Your task to perform on an android device: toggle priority inbox in the gmail app Image 0: 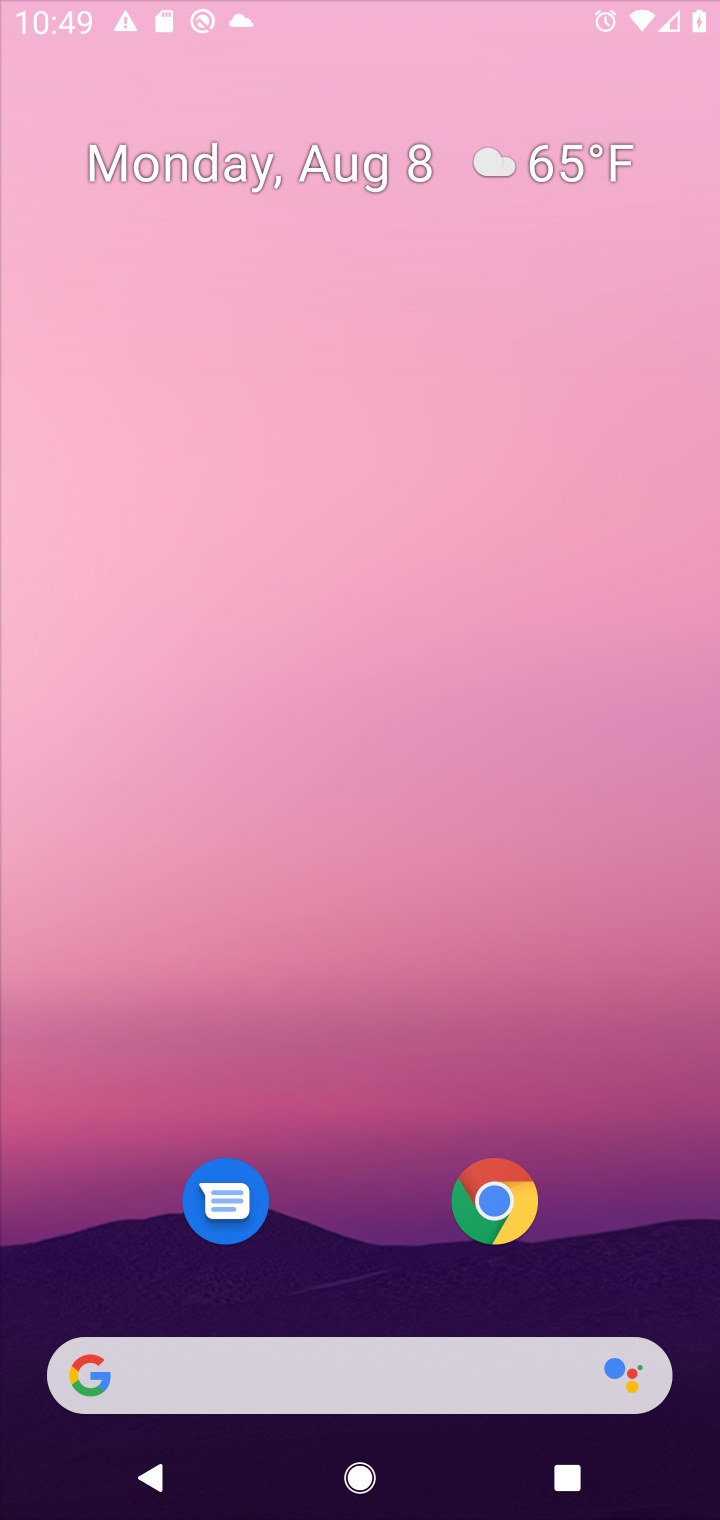
Step 0: press home button
Your task to perform on an android device: toggle priority inbox in the gmail app Image 1: 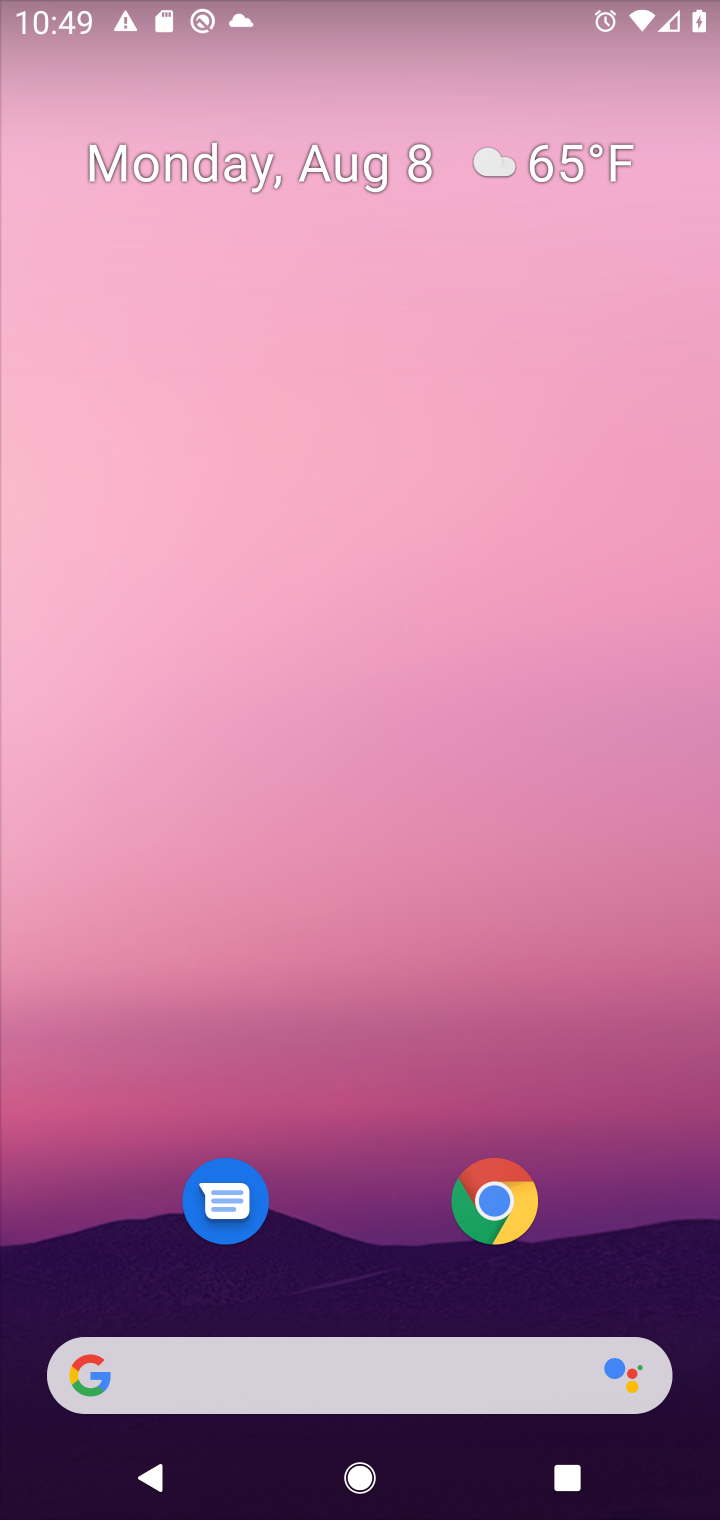
Step 1: drag from (602, 1253) to (608, 238)
Your task to perform on an android device: toggle priority inbox in the gmail app Image 2: 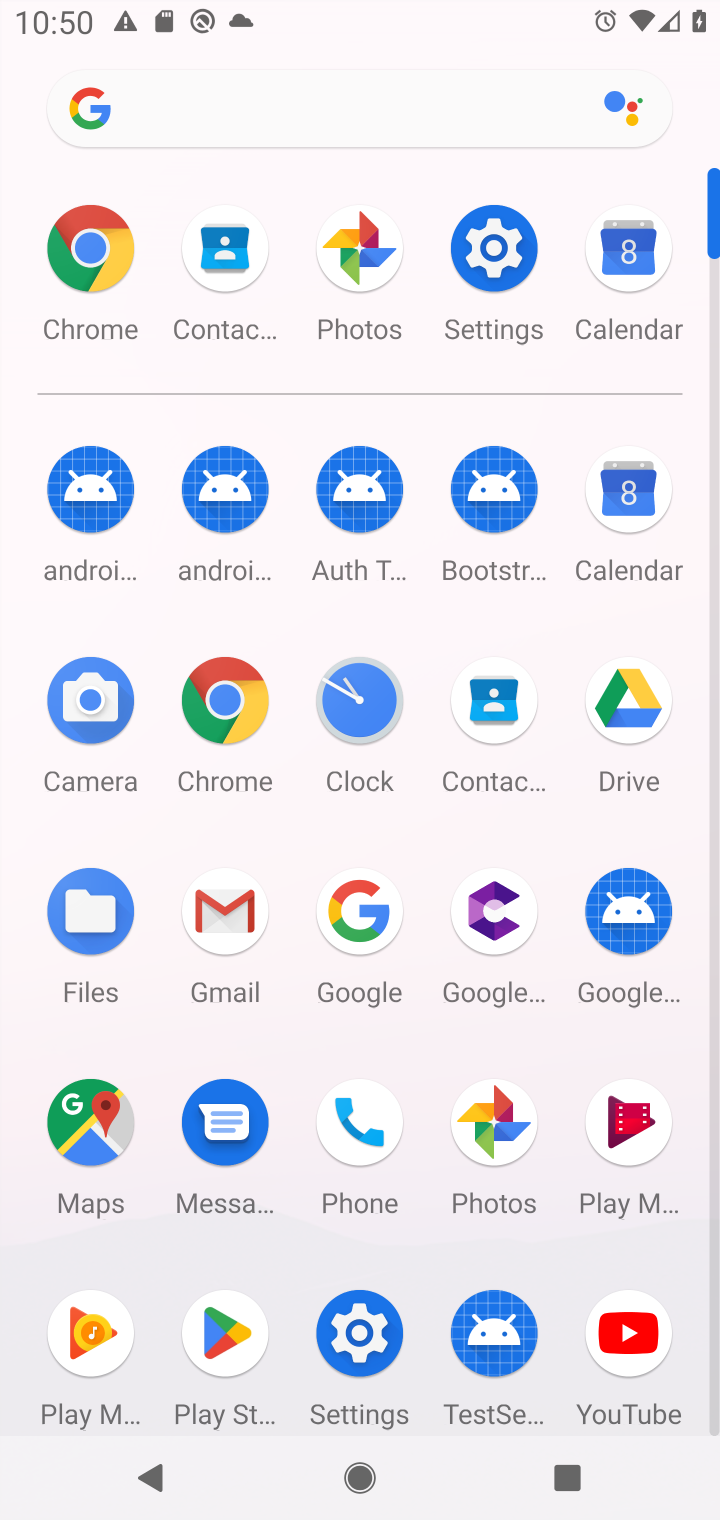
Step 2: click (215, 906)
Your task to perform on an android device: toggle priority inbox in the gmail app Image 3: 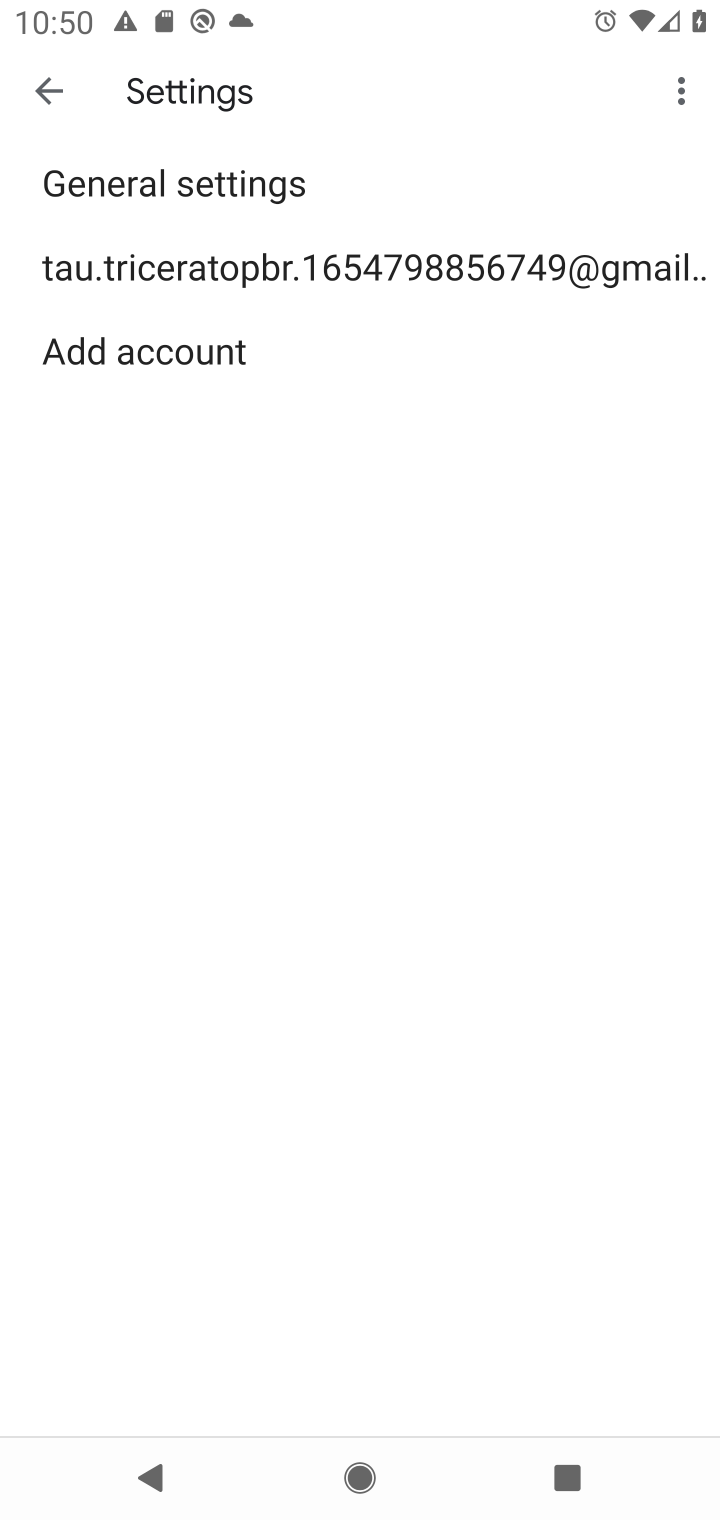
Step 3: click (367, 243)
Your task to perform on an android device: toggle priority inbox in the gmail app Image 4: 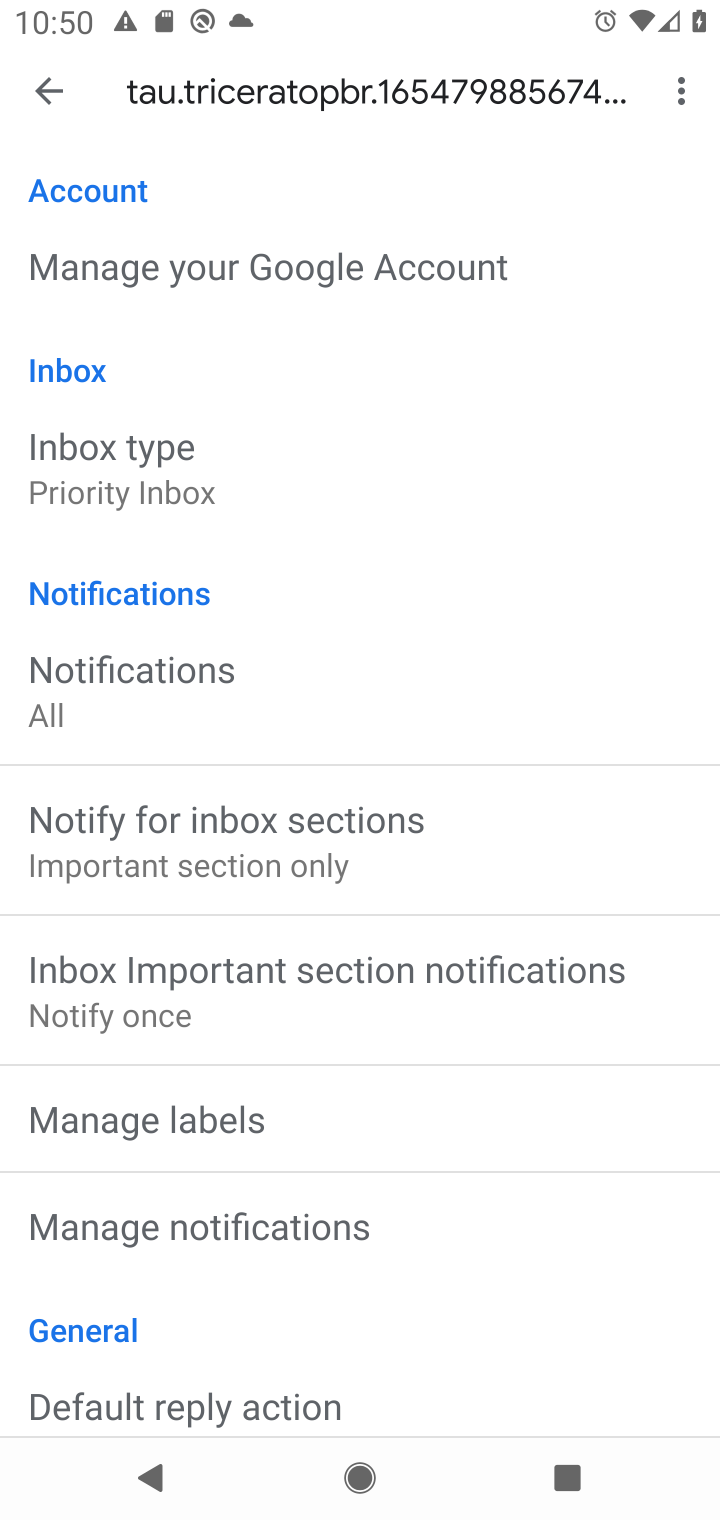
Step 4: task complete